Your task to perform on an android device: change timer sound Image 0: 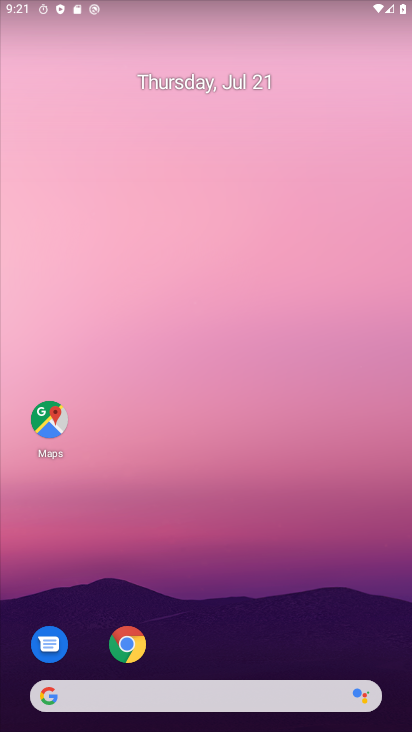
Step 0: drag from (163, 693) to (79, 135)
Your task to perform on an android device: change timer sound Image 1: 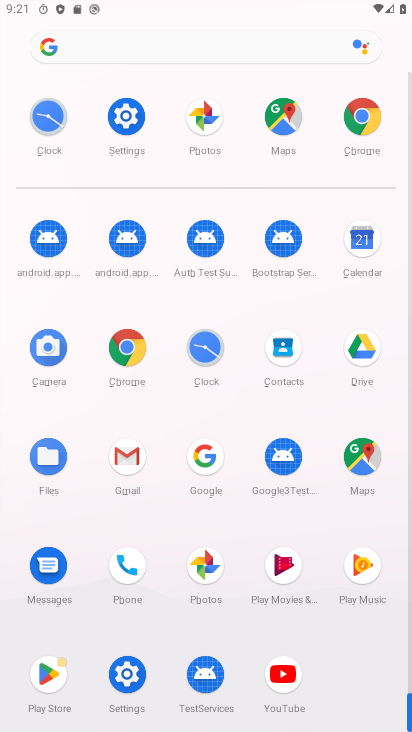
Step 1: click (129, 115)
Your task to perform on an android device: change timer sound Image 2: 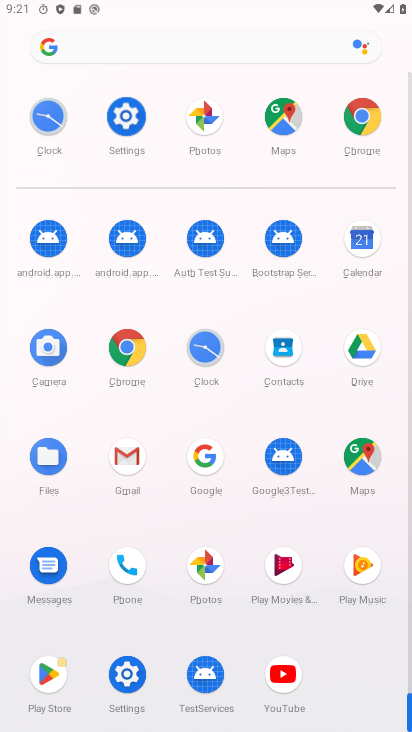
Step 2: click (129, 115)
Your task to perform on an android device: change timer sound Image 3: 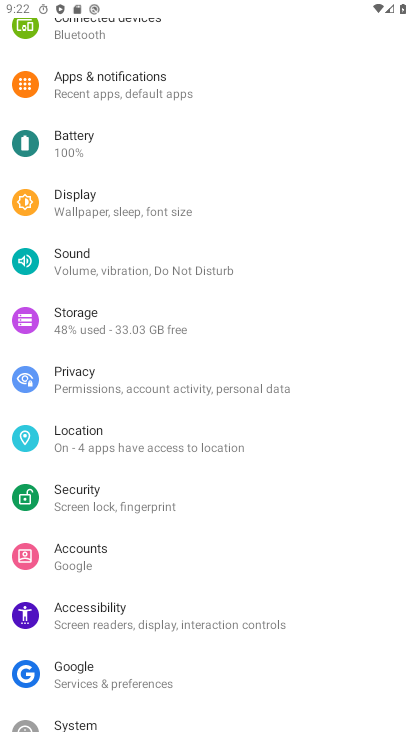
Step 3: drag from (102, 284) to (135, 570)
Your task to perform on an android device: change timer sound Image 4: 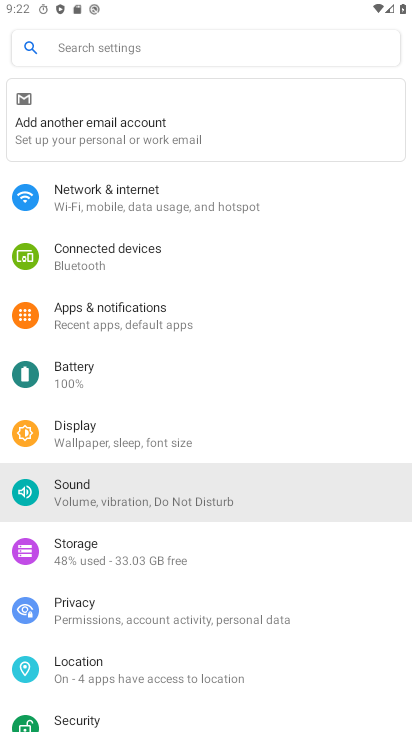
Step 4: drag from (111, 300) to (110, 634)
Your task to perform on an android device: change timer sound Image 5: 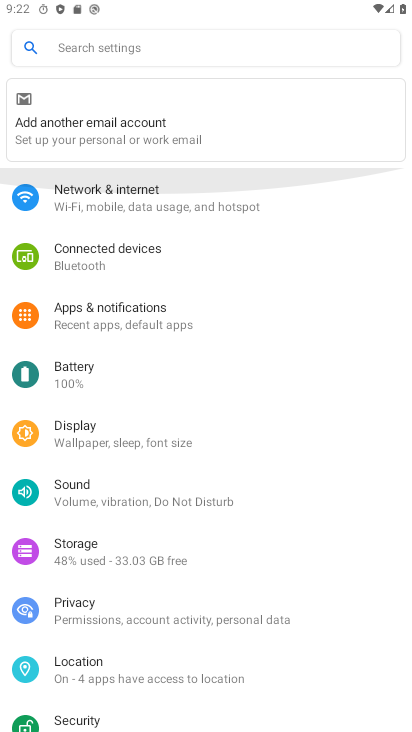
Step 5: drag from (115, 297) to (155, 526)
Your task to perform on an android device: change timer sound Image 6: 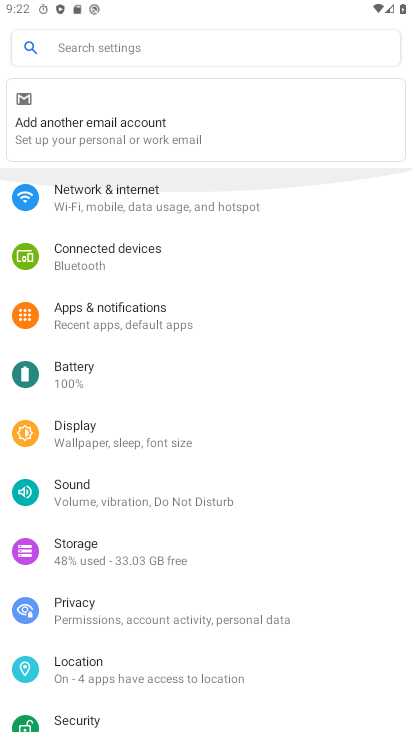
Step 6: drag from (115, 129) to (127, 519)
Your task to perform on an android device: change timer sound Image 7: 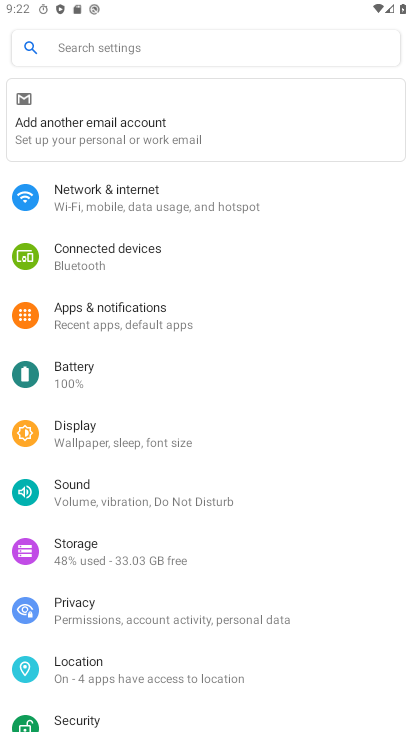
Step 7: press back button
Your task to perform on an android device: change timer sound Image 8: 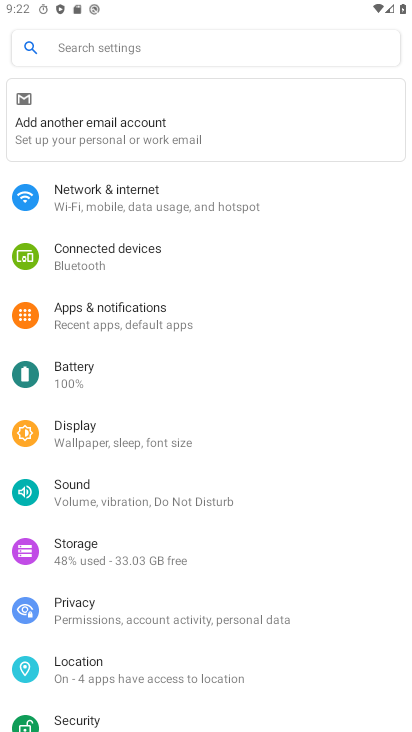
Step 8: press back button
Your task to perform on an android device: change timer sound Image 9: 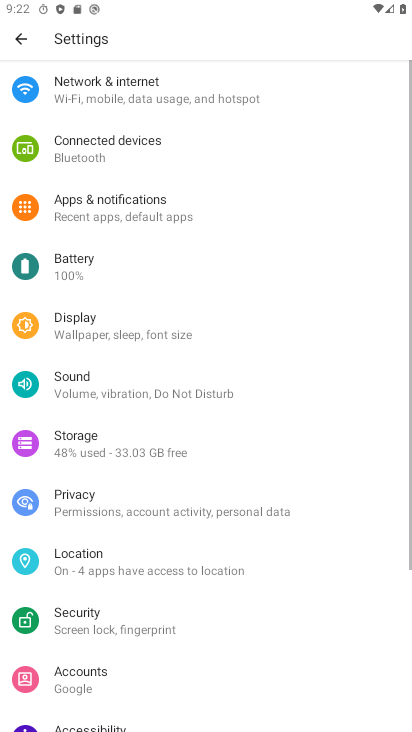
Step 9: press back button
Your task to perform on an android device: change timer sound Image 10: 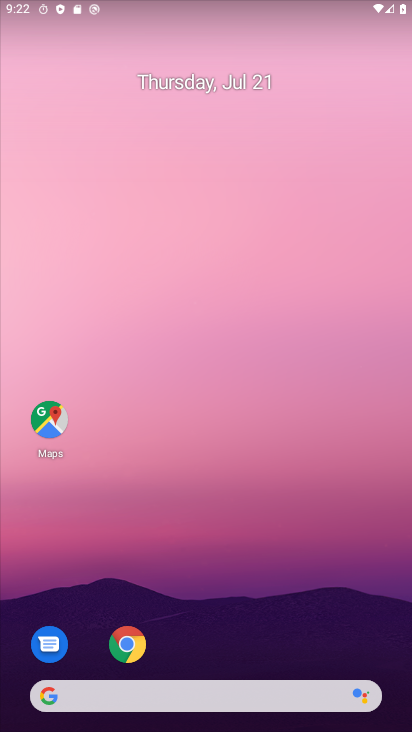
Step 10: drag from (243, 576) to (228, 45)
Your task to perform on an android device: change timer sound Image 11: 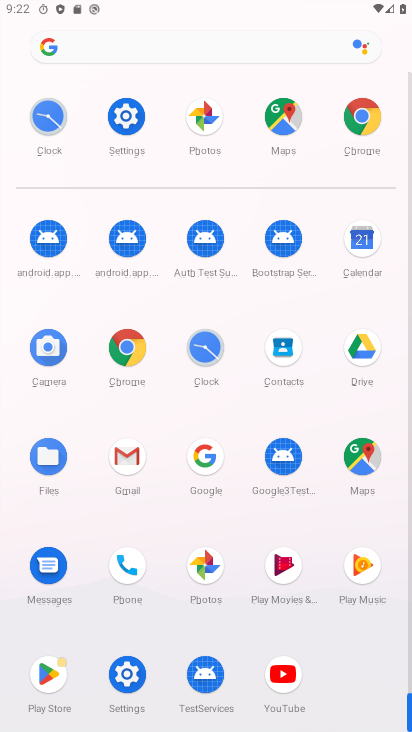
Step 11: click (193, 349)
Your task to perform on an android device: change timer sound Image 12: 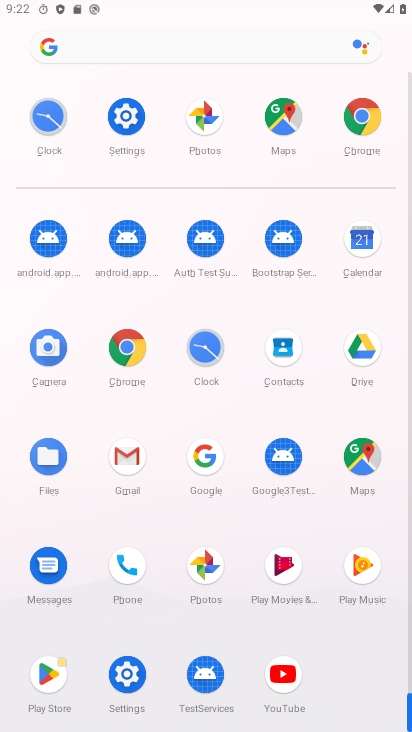
Step 12: click (194, 347)
Your task to perform on an android device: change timer sound Image 13: 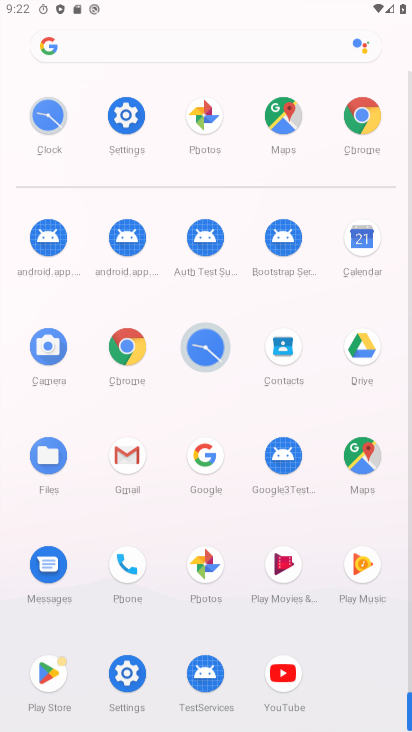
Step 13: click (195, 347)
Your task to perform on an android device: change timer sound Image 14: 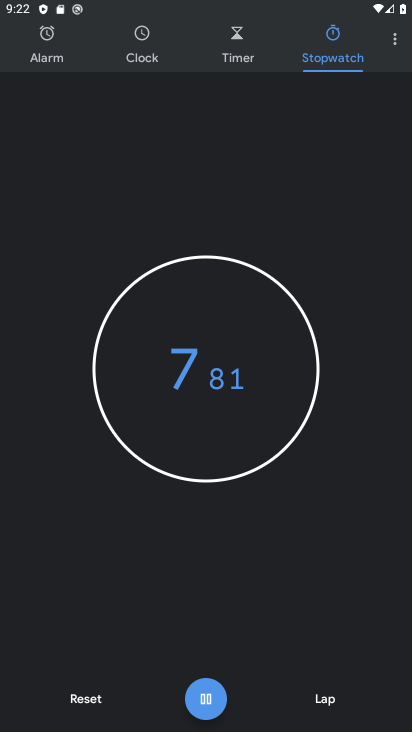
Step 14: click (209, 699)
Your task to perform on an android device: change timer sound Image 15: 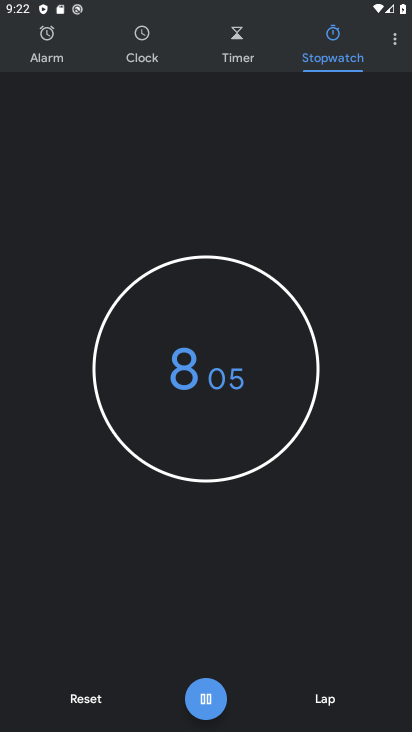
Step 15: click (209, 699)
Your task to perform on an android device: change timer sound Image 16: 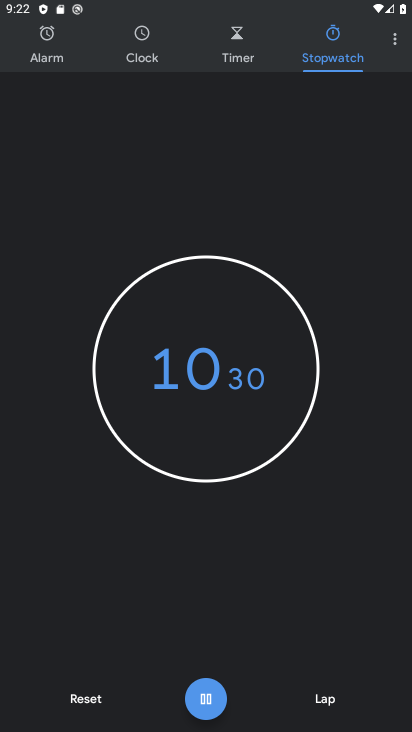
Step 16: click (203, 698)
Your task to perform on an android device: change timer sound Image 17: 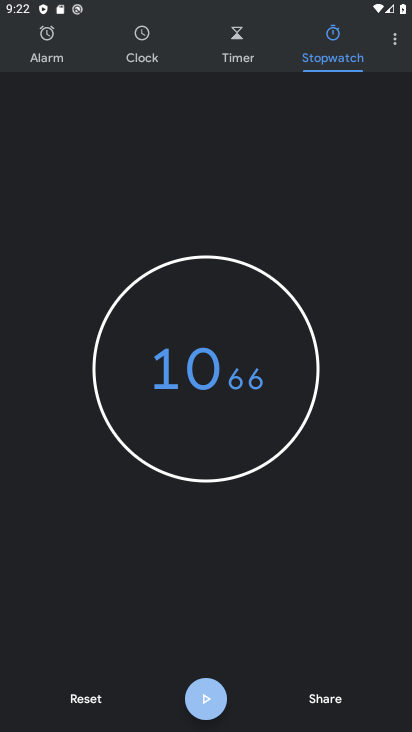
Step 17: click (205, 694)
Your task to perform on an android device: change timer sound Image 18: 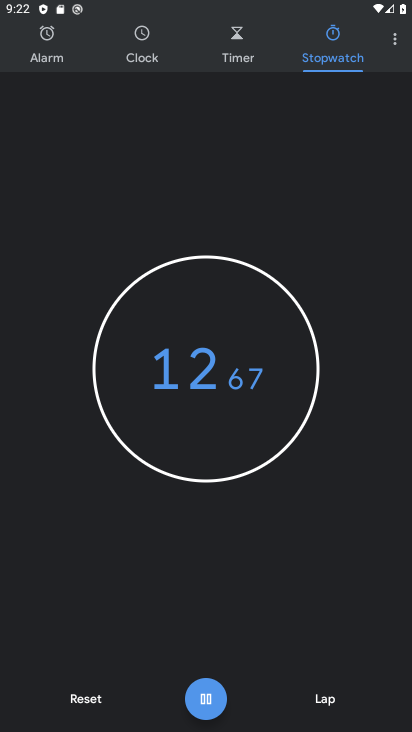
Step 18: click (205, 694)
Your task to perform on an android device: change timer sound Image 19: 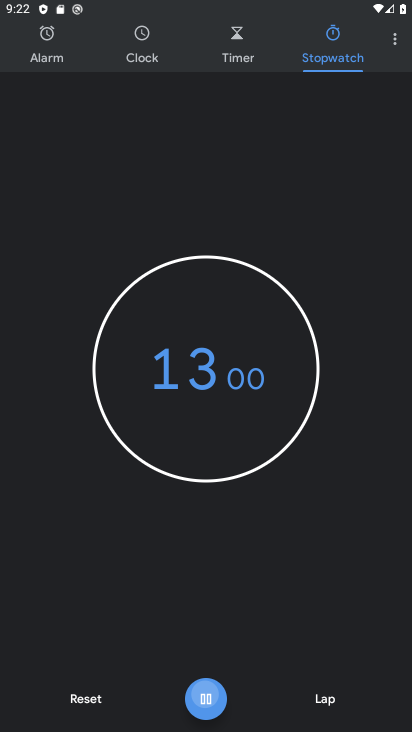
Step 19: click (205, 695)
Your task to perform on an android device: change timer sound Image 20: 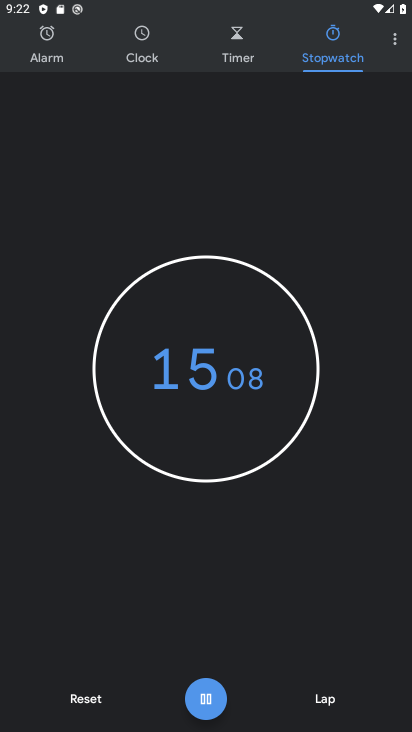
Step 20: click (208, 700)
Your task to perform on an android device: change timer sound Image 21: 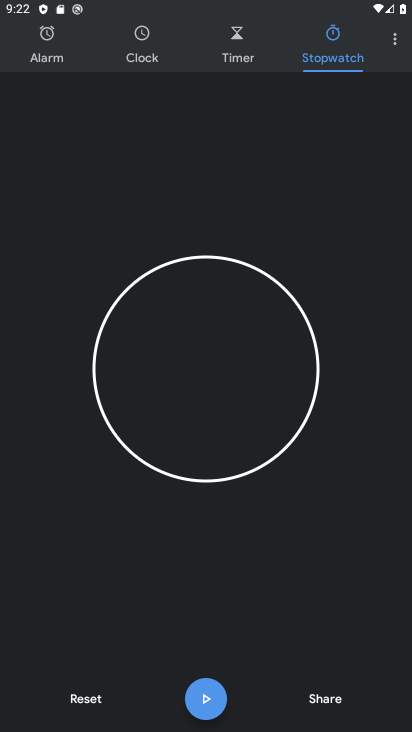
Step 21: click (390, 40)
Your task to perform on an android device: change timer sound Image 22: 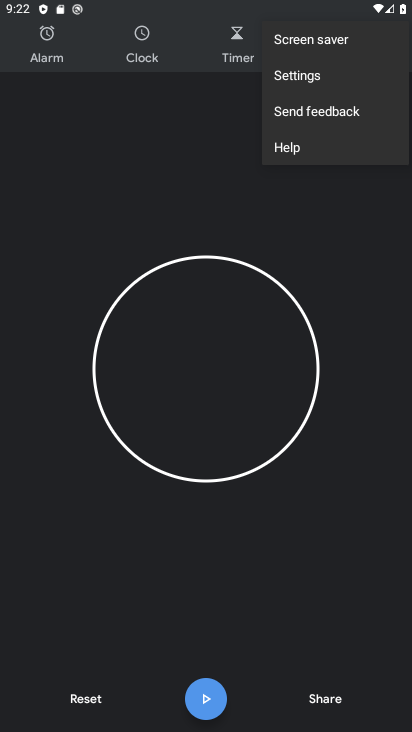
Step 22: click (308, 72)
Your task to perform on an android device: change timer sound Image 23: 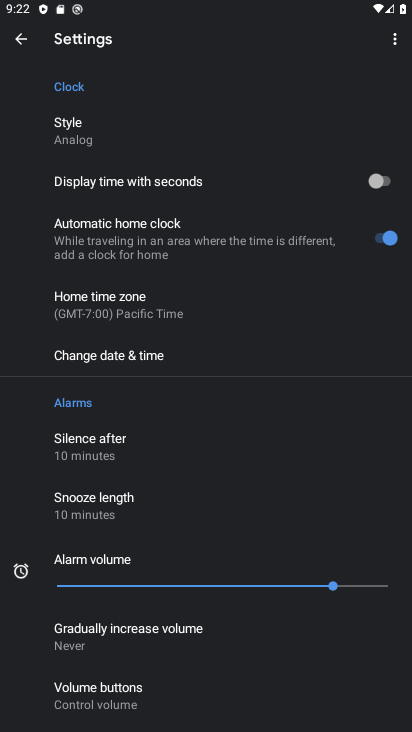
Step 23: drag from (117, 625) to (114, 242)
Your task to perform on an android device: change timer sound Image 24: 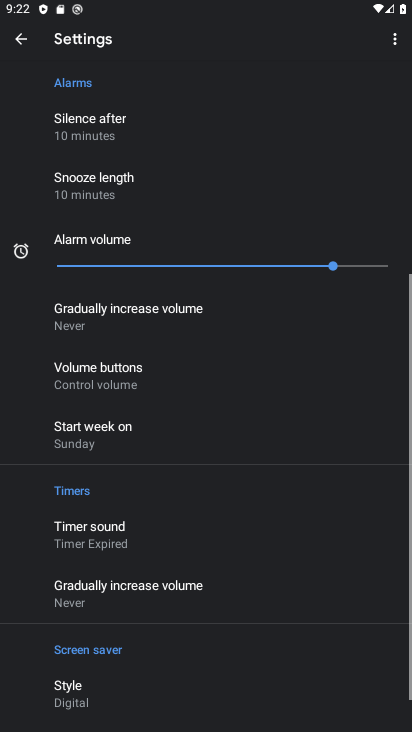
Step 24: drag from (112, 596) to (112, 238)
Your task to perform on an android device: change timer sound Image 25: 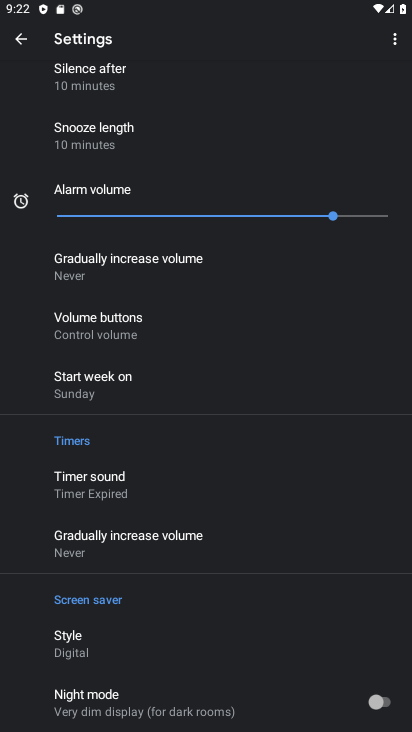
Step 25: click (86, 497)
Your task to perform on an android device: change timer sound Image 26: 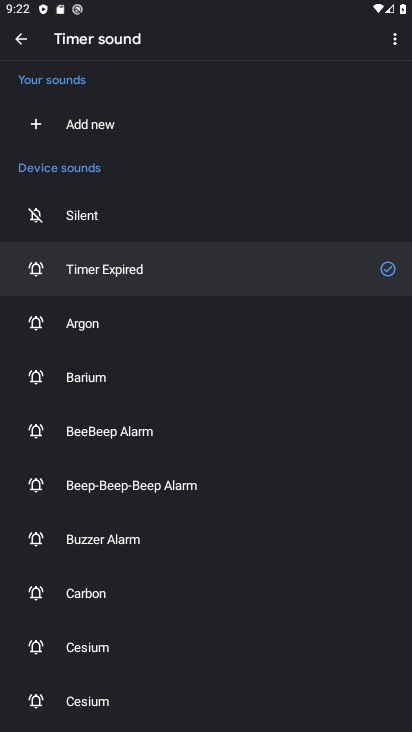
Step 26: click (34, 437)
Your task to perform on an android device: change timer sound Image 27: 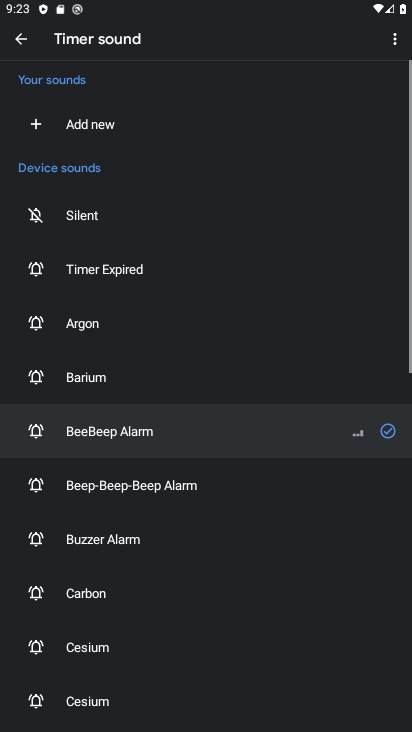
Step 27: task complete